Your task to perform on an android device: Open Maps and search for coffee Image 0: 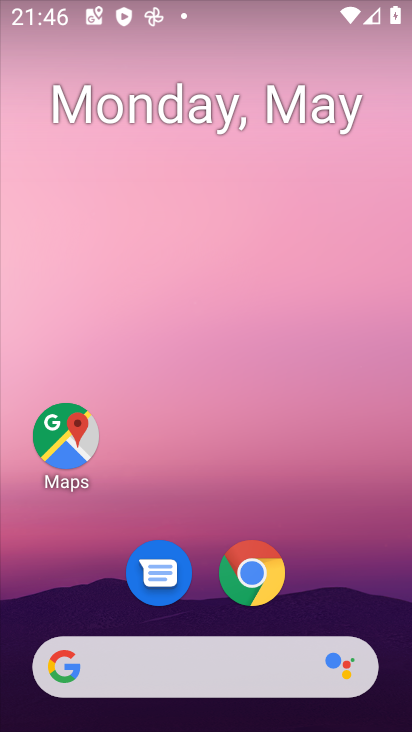
Step 0: drag from (358, 544) to (291, 21)
Your task to perform on an android device: Open Maps and search for coffee Image 1: 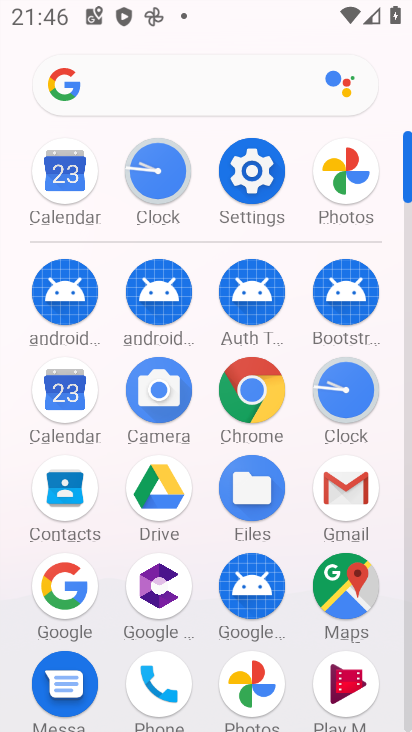
Step 1: click (362, 606)
Your task to perform on an android device: Open Maps and search for coffee Image 2: 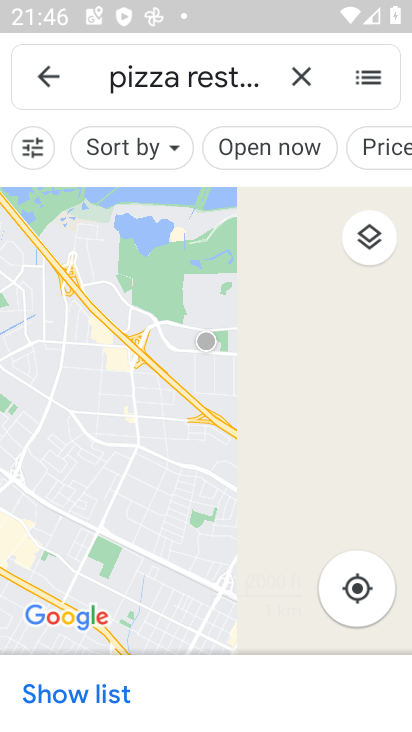
Step 2: click (42, 84)
Your task to perform on an android device: Open Maps and search for coffee Image 3: 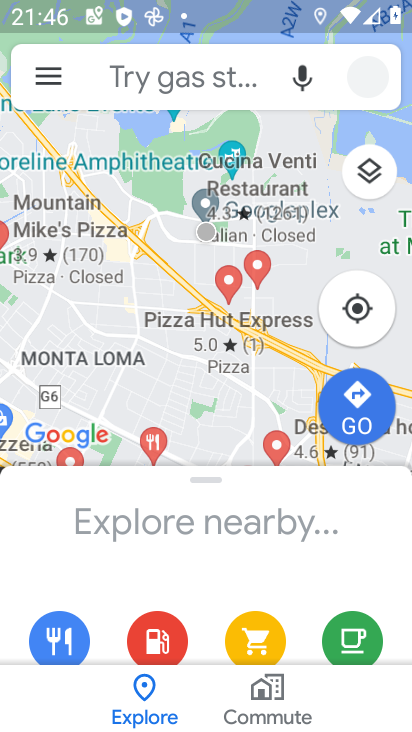
Step 3: click (128, 85)
Your task to perform on an android device: Open Maps and search for coffee Image 4: 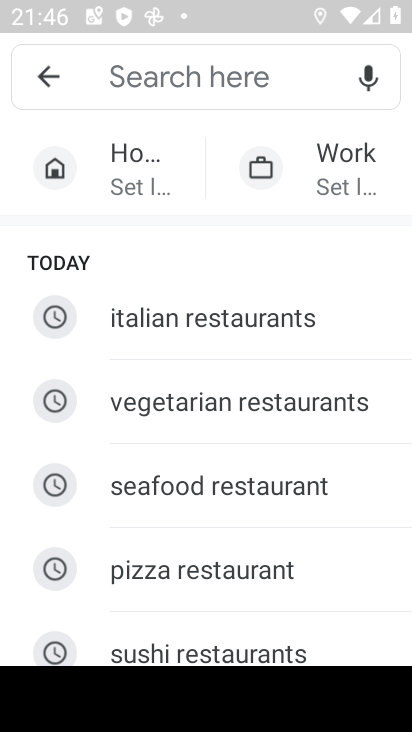
Step 4: drag from (239, 627) to (220, 335)
Your task to perform on an android device: Open Maps and search for coffee Image 5: 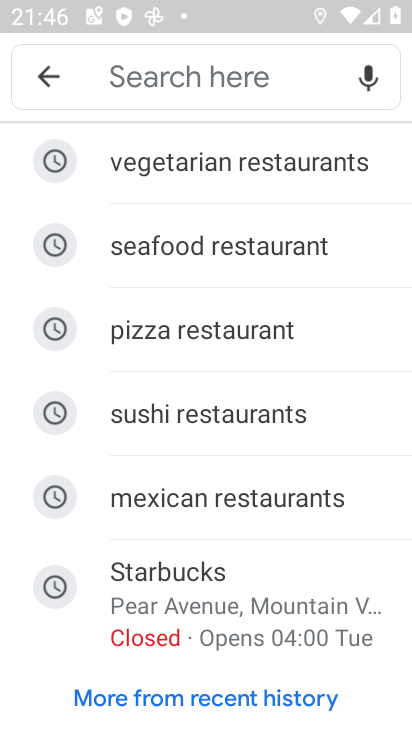
Step 5: click (201, 556)
Your task to perform on an android device: Open Maps and search for coffee Image 6: 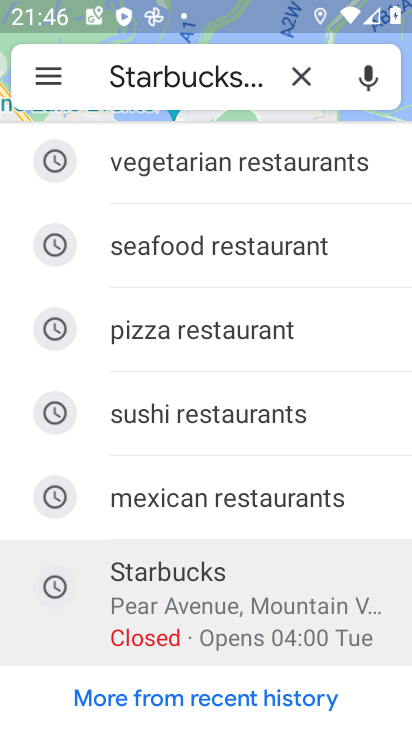
Step 6: task complete